Your task to perform on an android device: Empty the shopping cart on newegg.com. Search for "usb-b" on newegg.com, select the first entry, add it to the cart, then select checkout. Image 0: 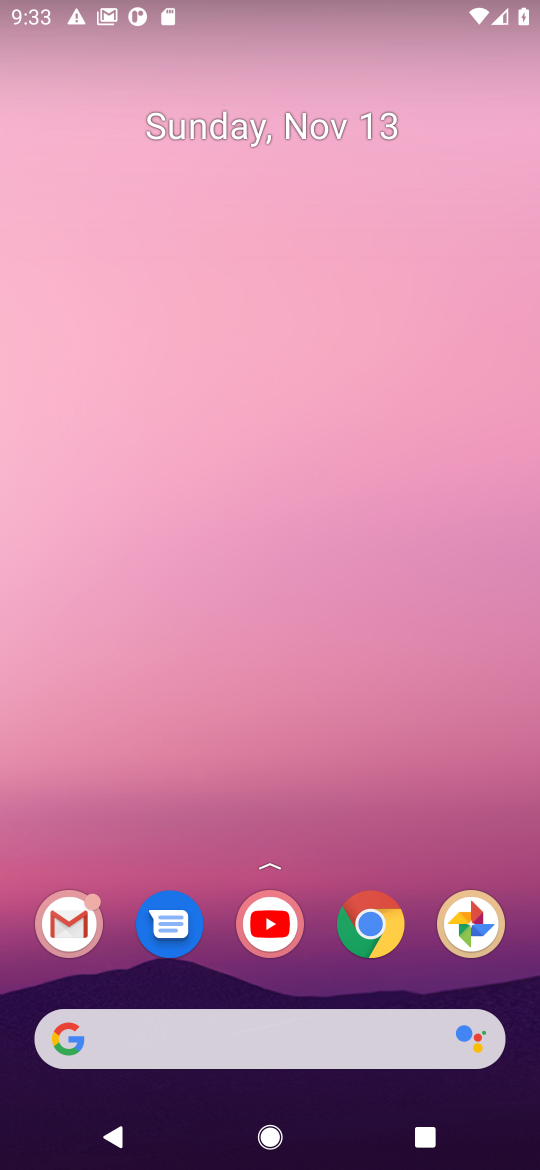
Step 0: click (369, 924)
Your task to perform on an android device: Empty the shopping cart on newegg.com. Search for "usb-b" on newegg.com, select the first entry, add it to the cart, then select checkout. Image 1: 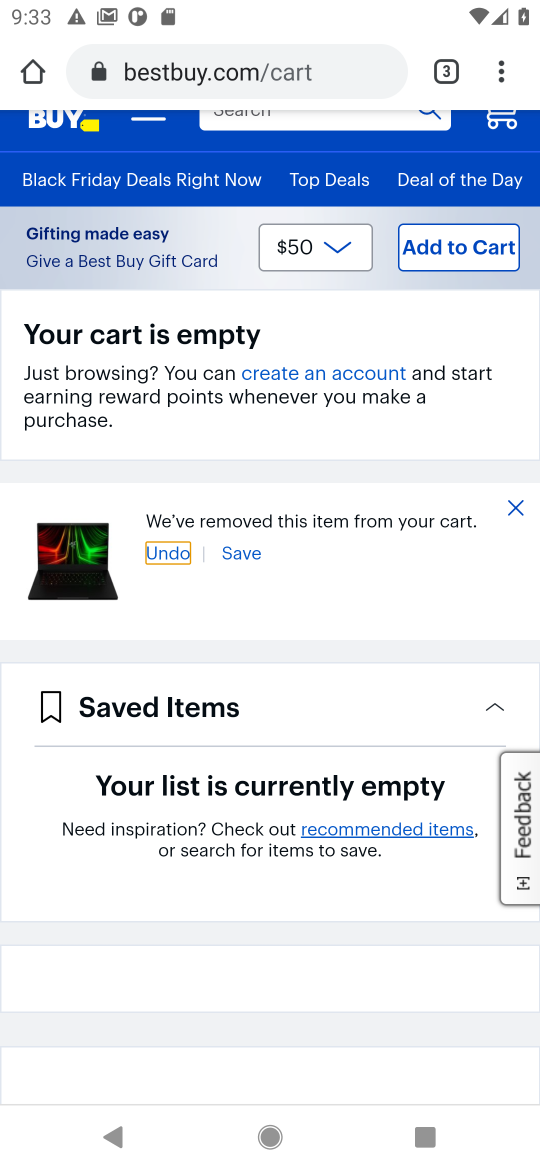
Step 1: click (228, 67)
Your task to perform on an android device: Empty the shopping cart on newegg.com. Search for "usb-b" on newegg.com, select the first entry, add it to the cart, then select checkout. Image 2: 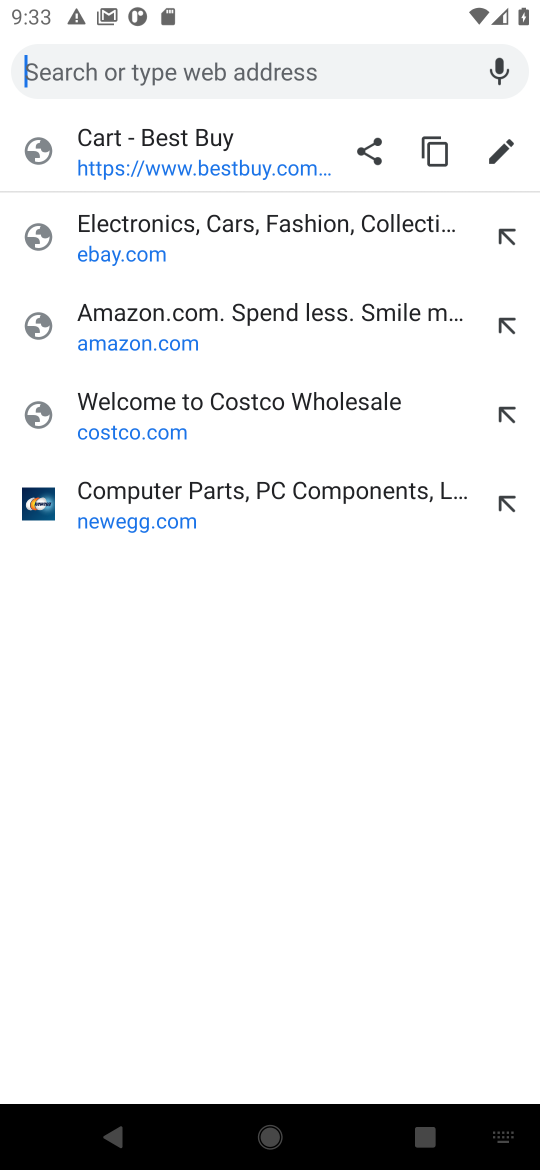
Step 2: click (119, 510)
Your task to perform on an android device: Empty the shopping cart on newegg.com. Search for "usb-b" on newegg.com, select the first entry, add it to the cart, then select checkout. Image 3: 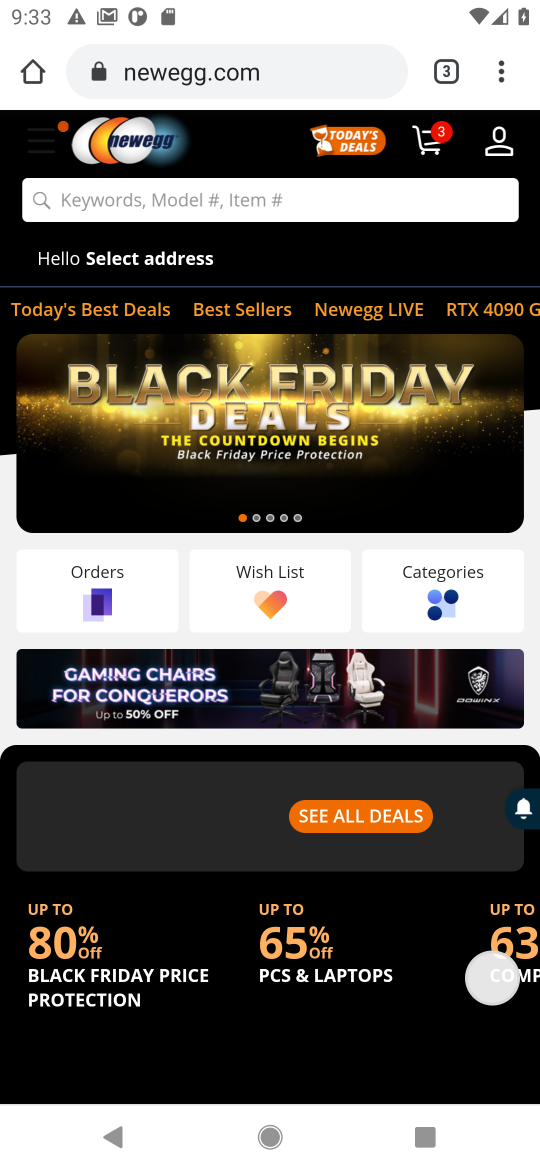
Step 3: click (429, 138)
Your task to perform on an android device: Empty the shopping cart on newegg.com. Search for "usb-b" on newegg.com, select the first entry, add it to the cart, then select checkout. Image 4: 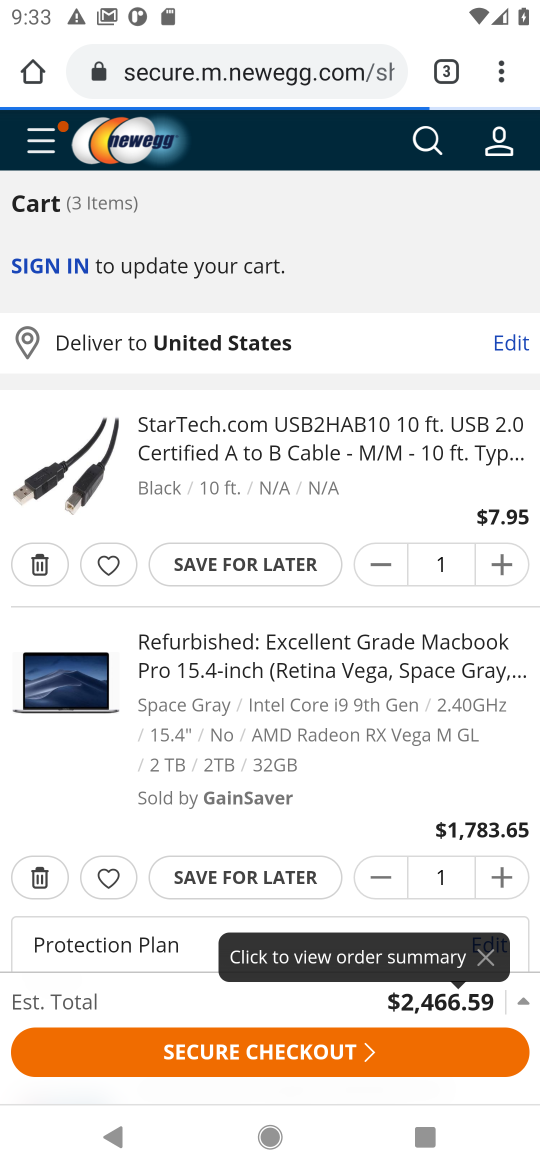
Step 4: click (41, 870)
Your task to perform on an android device: Empty the shopping cart on newegg.com. Search for "usb-b" on newegg.com, select the first entry, add it to the cart, then select checkout. Image 5: 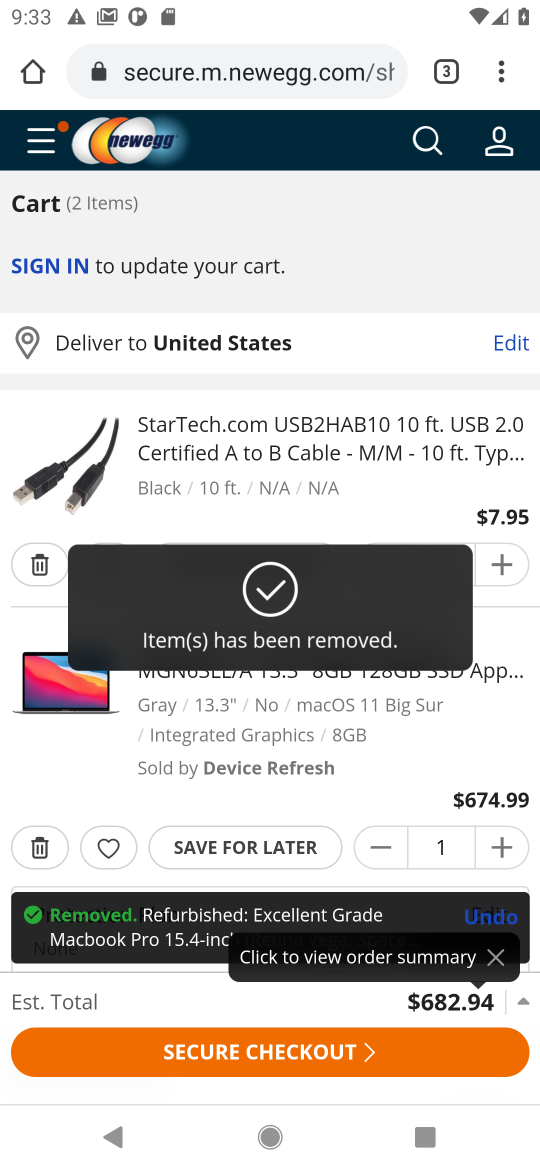
Step 5: click (43, 561)
Your task to perform on an android device: Empty the shopping cart on newegg.com. Search for "usb-b" on newegg.com, select the first entry, add it to the cart, then select checkout. Image 6: 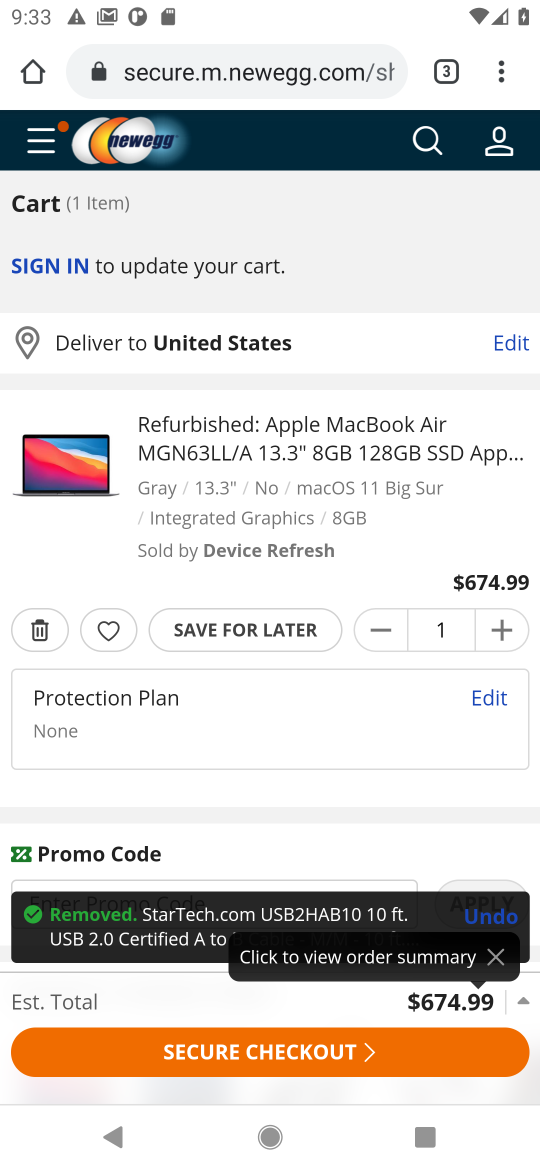
Step 6: click (35, 639)
Your task to perform on an android device: Empty the shopping cart on newegg.com. Search for "usb-b" on newegg.com, select the first entry, add it to the cart, then select checkout. Image 7: 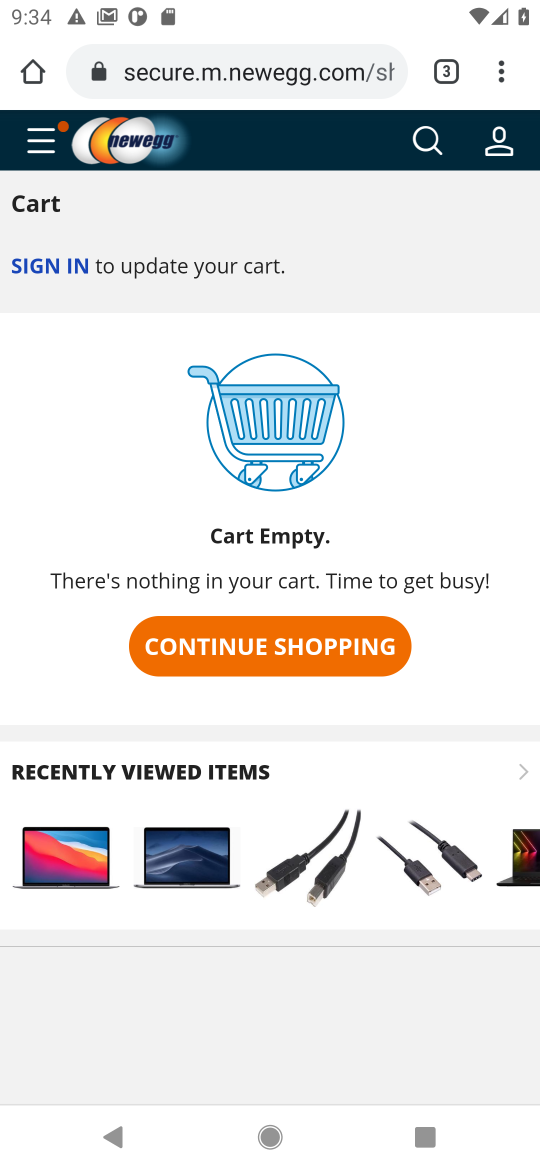
Step 7: click (434, 136)
Your task to perform on an android device: Empty the shopping cart on newegg.com. Search for "usb-b" on newegg.com, select the first entry, add it to the cart, then select checkout. Image 8: 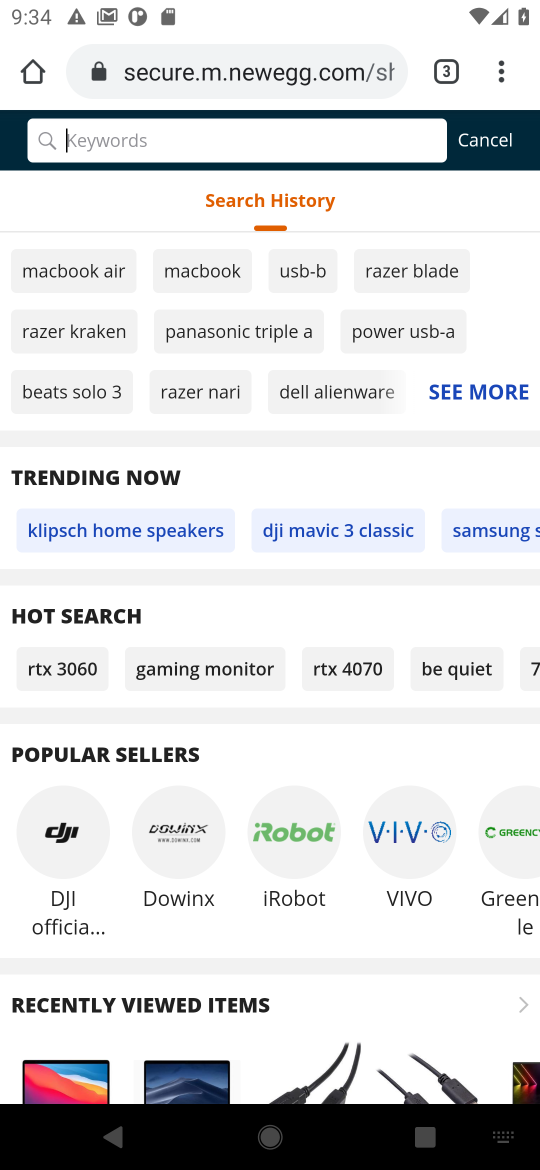
Step 8: type "usb-b"
Your task to perform on an android device: Empty the shopping cart on newegg.com. Search for "usb-b" on newegg.com, select the first entry, add it to the cart, then select checkout. Image 9: 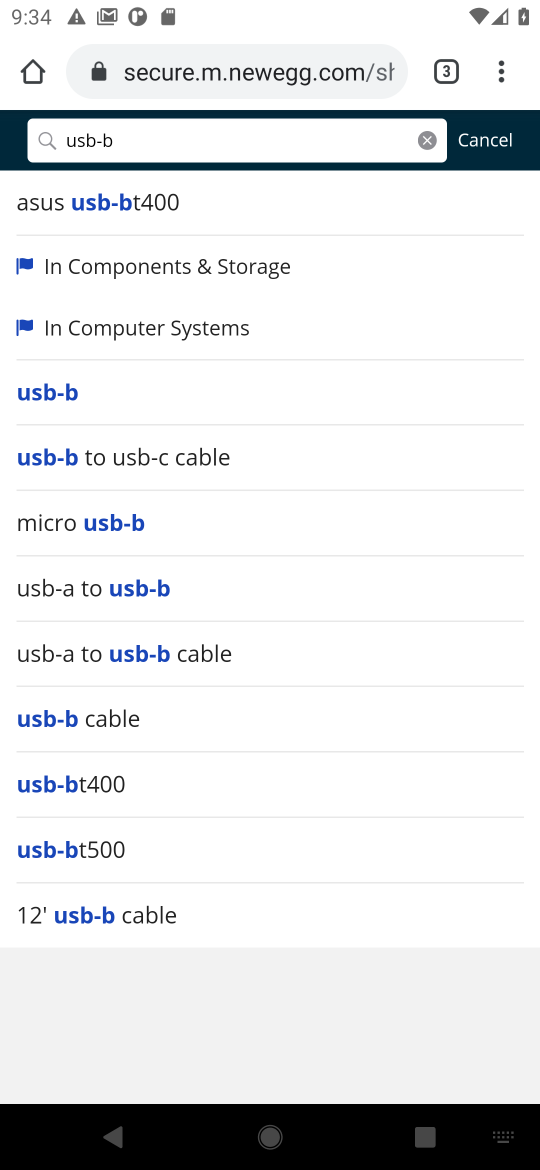
Step 9: click (20, 397)
Your task to perform on an android device: Empty the shopping cart on newegg.com. Search for "usb-b" on newegg.com, select the first entry, add it to the cart, then select checkout. Image 10: 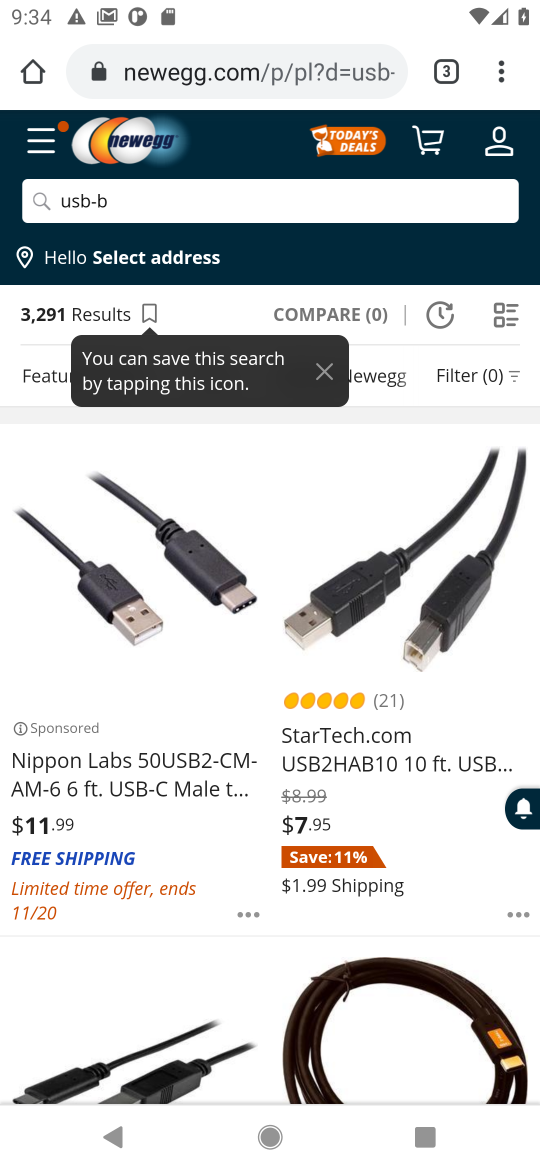
Step 10: click (134, 627)
Your task to perform on an android device: Empty the shopping cart on newegg.com. Search for "usb-b" on newegg.com, select the first entry, add it to the cart, then select checkout. Image 11: 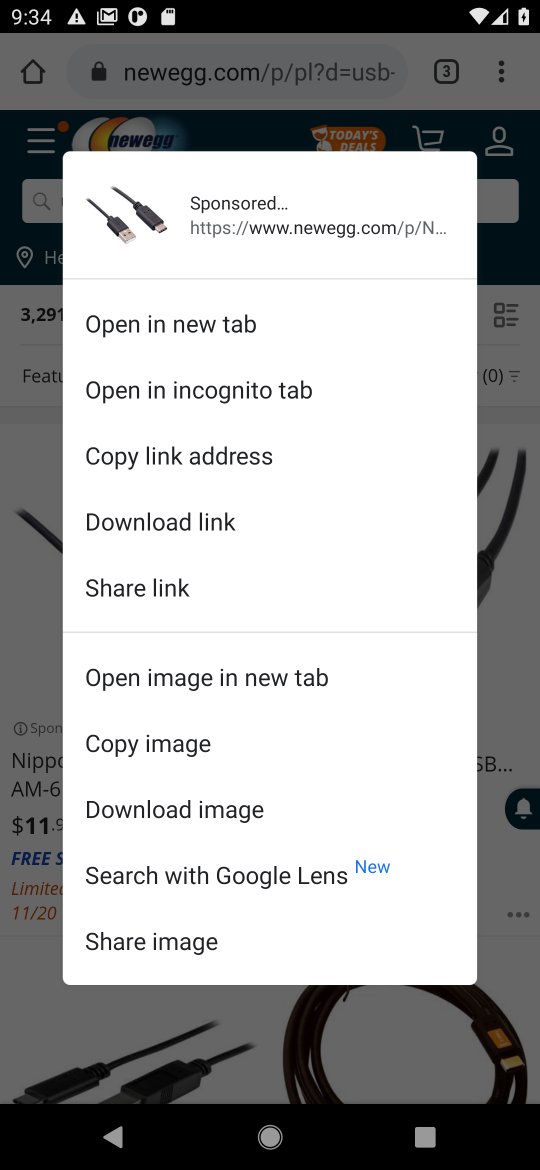
Step 11: click (14, 590)
Your task to perform on an android device: Empty the shopping cart on newegg.com. Search for "usb-b" on newegg.com, select the first entry, add it to the cart, then select checkout. Image 12: 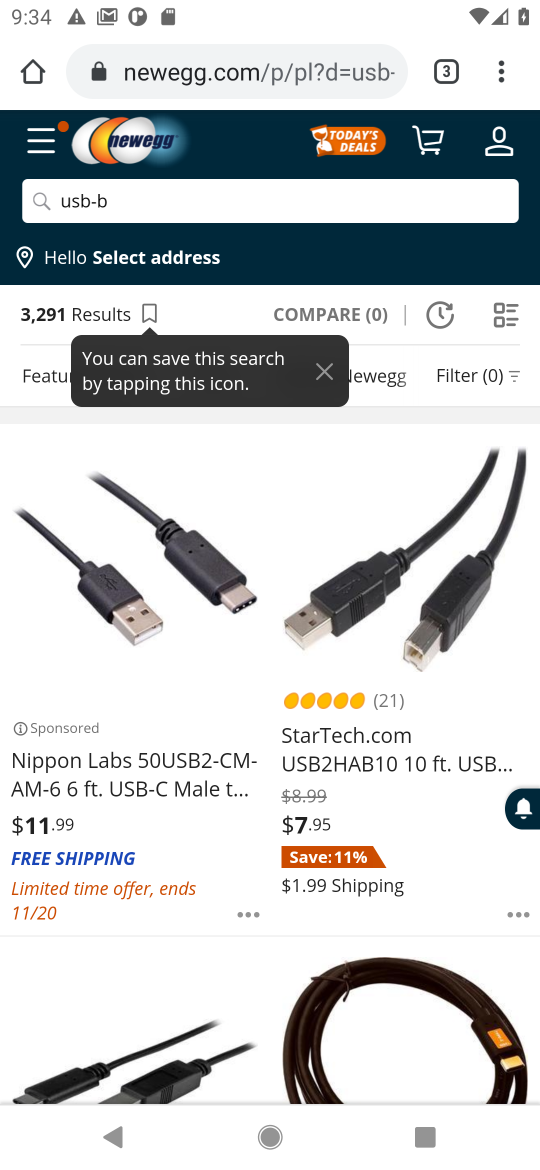
Step 12: click (23, 601)
Your task to perform on an android device: Empty the shopping cart on newegg.com. Search for "usb-b" on newegg.com, select the first entry, add it to the cart, then select checkout. Image 13: 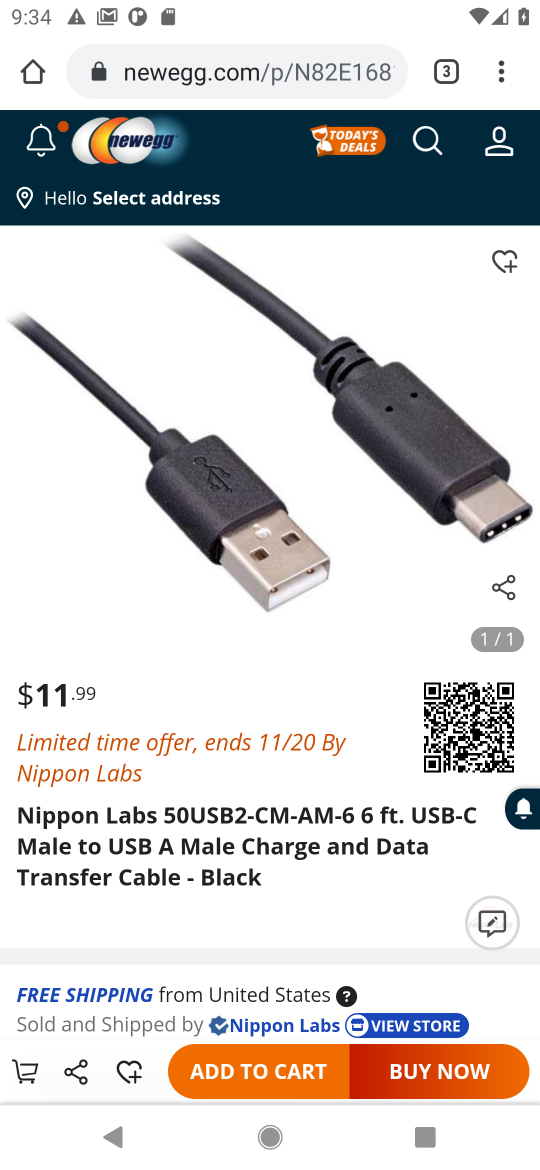
Step 13: task complete